Your task to perform on an android device: install app "Roku - Official Remote Control" Image 0: 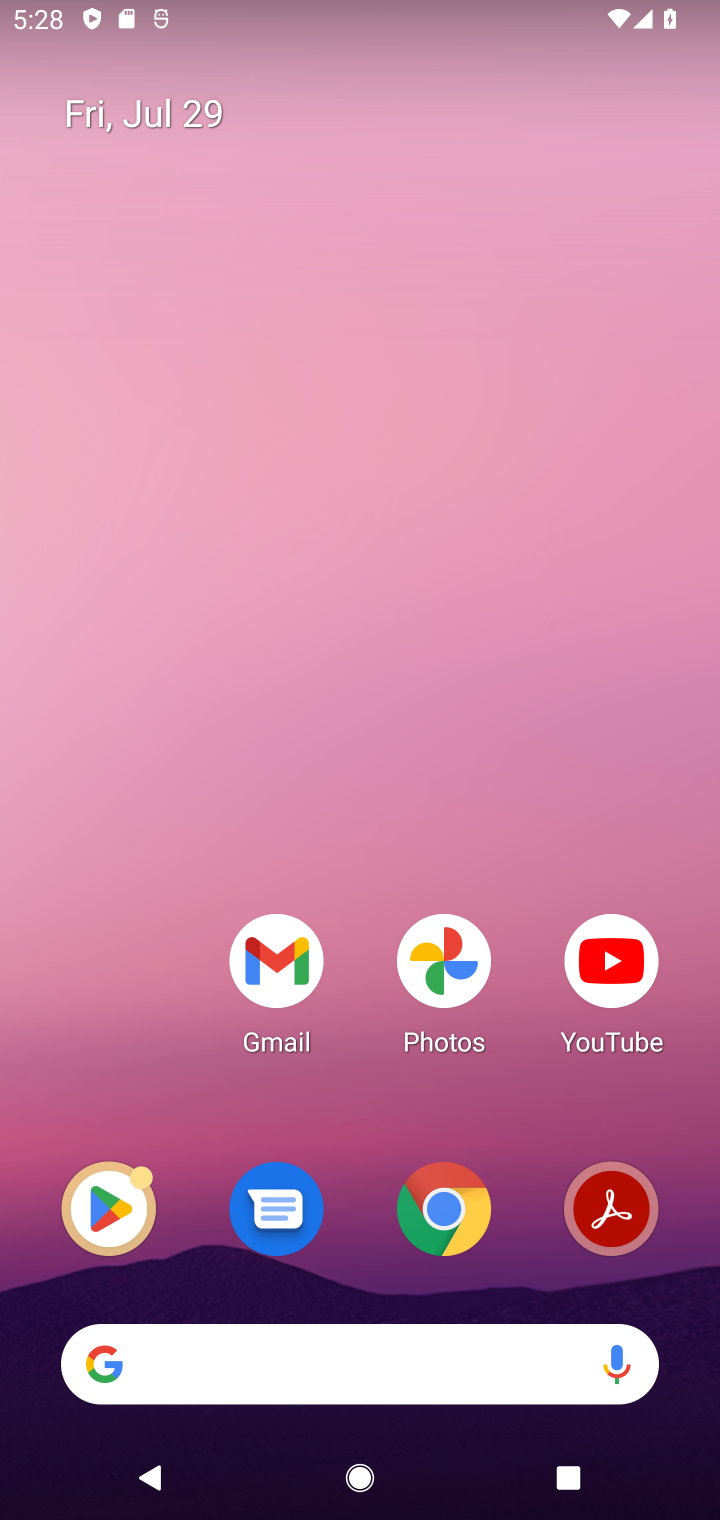
Step 0: click (101, 1218)
Your task to perform on an android device: install app "Roku - Official Remote Control" Image 1: 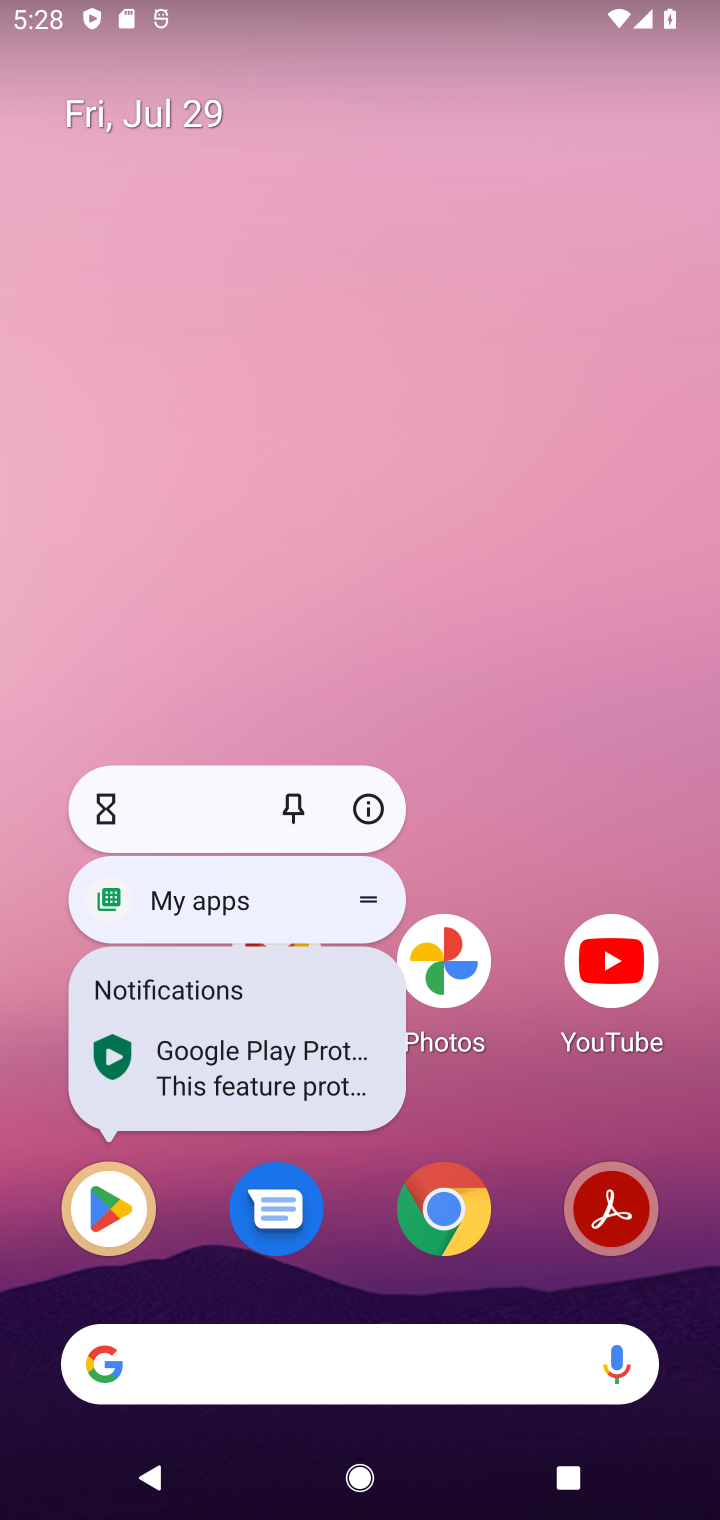
Step 1: click (101, 1218)
Your task to perform on an android device: install app "Roku - Official Remote Control" Image 2: 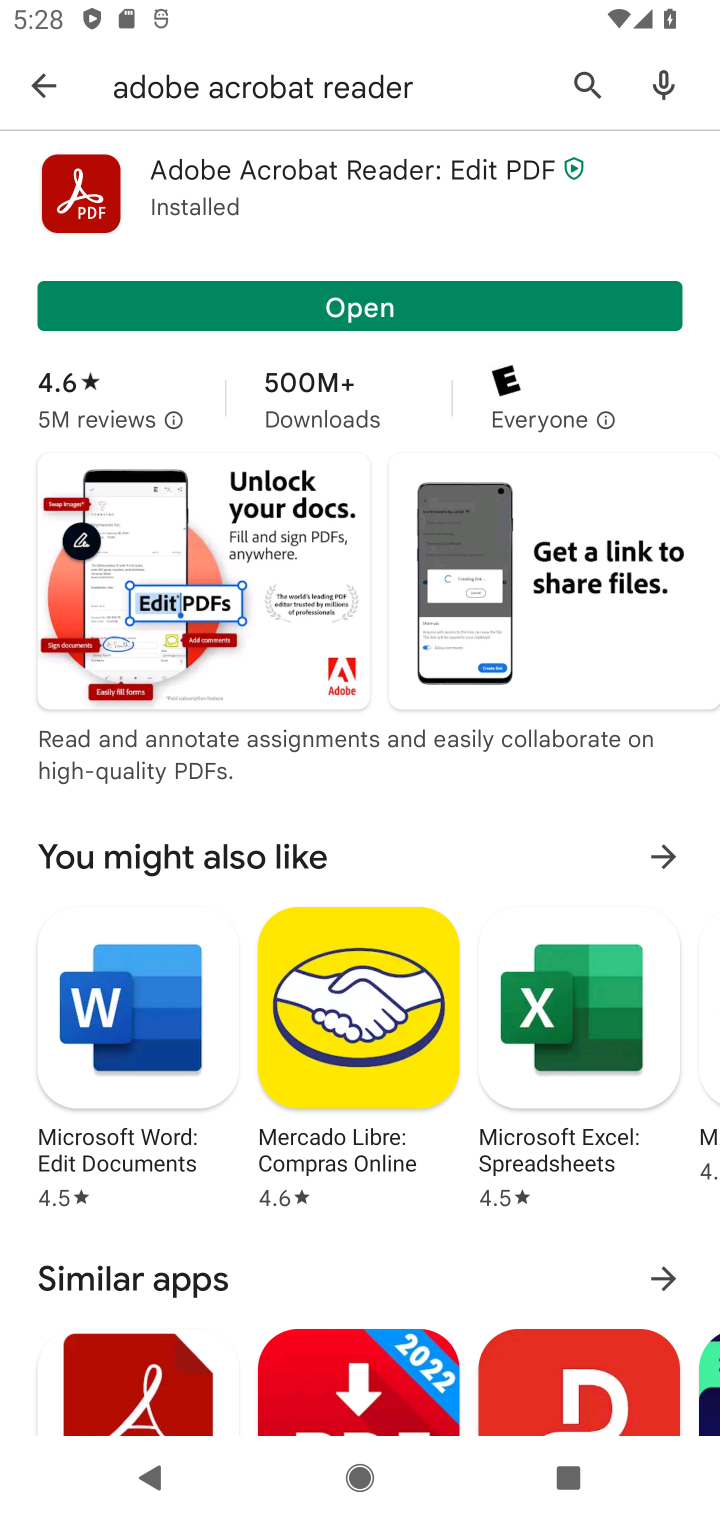
Step 2: click (579, 100)
Your task to perform on an android device: install app "Roku - Official Remote Control" Image 3: 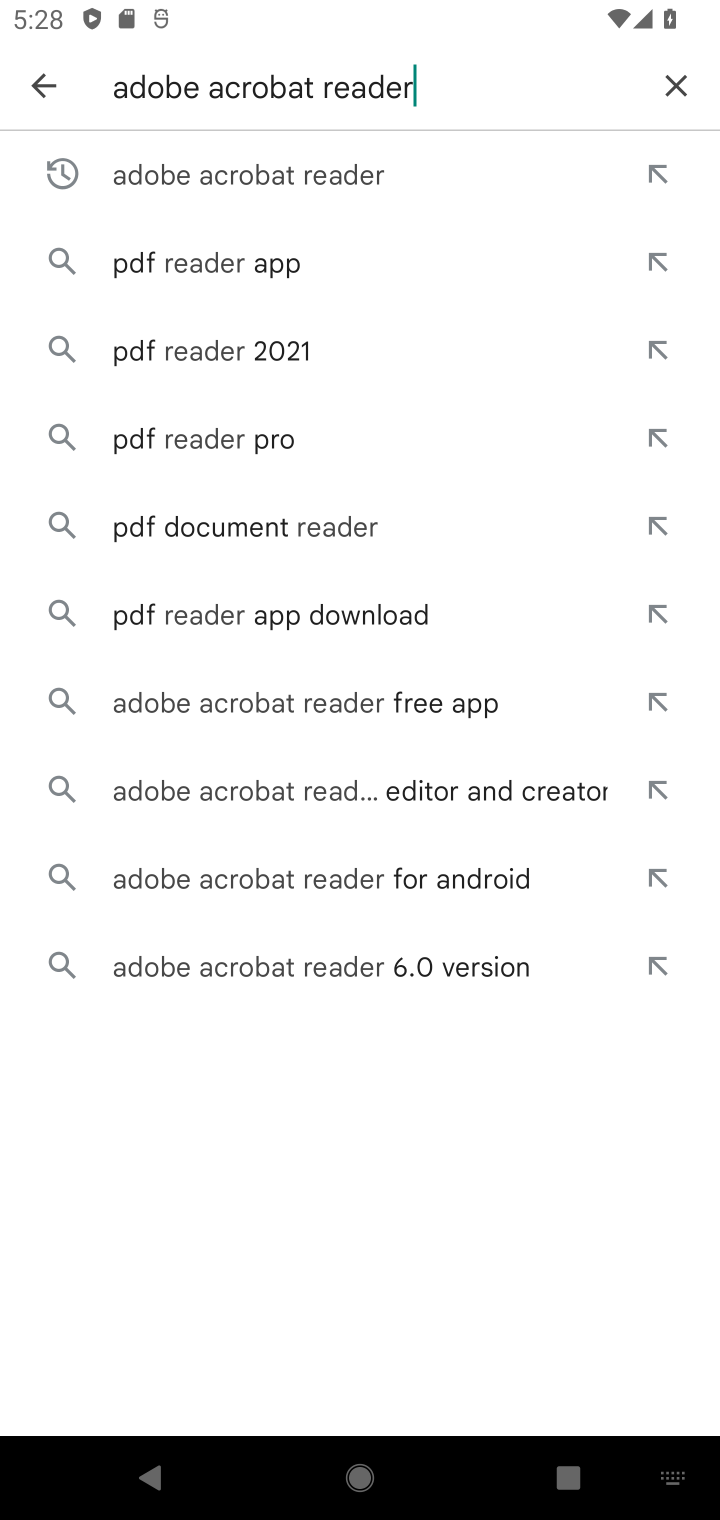
Step 3: click (680, 95)
Your task to perform on an android device: install app "Roku - Official Remote Control" Image 4: 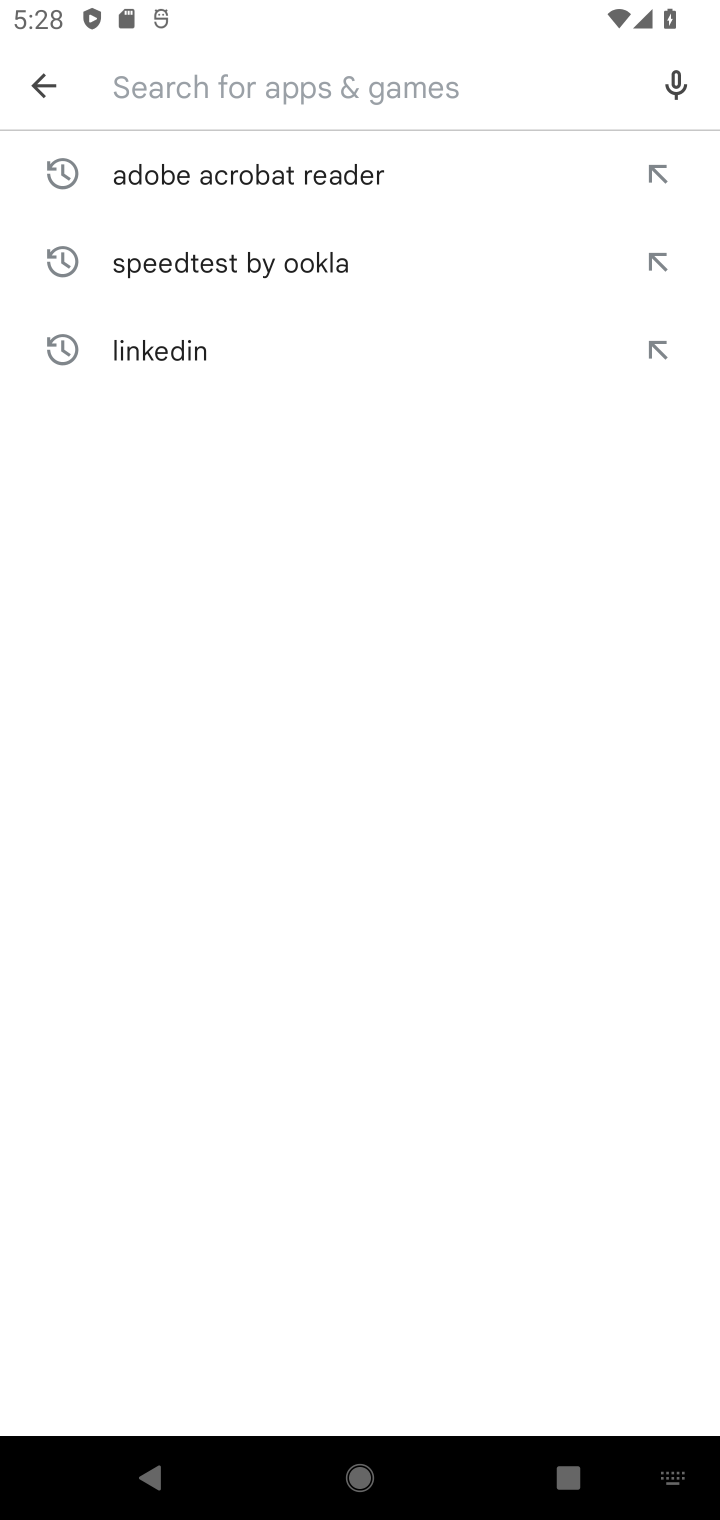
Step 4: click (420, 98)
Your task to perform on an android device: install app "Roku - Official Remote Control" Image 5: 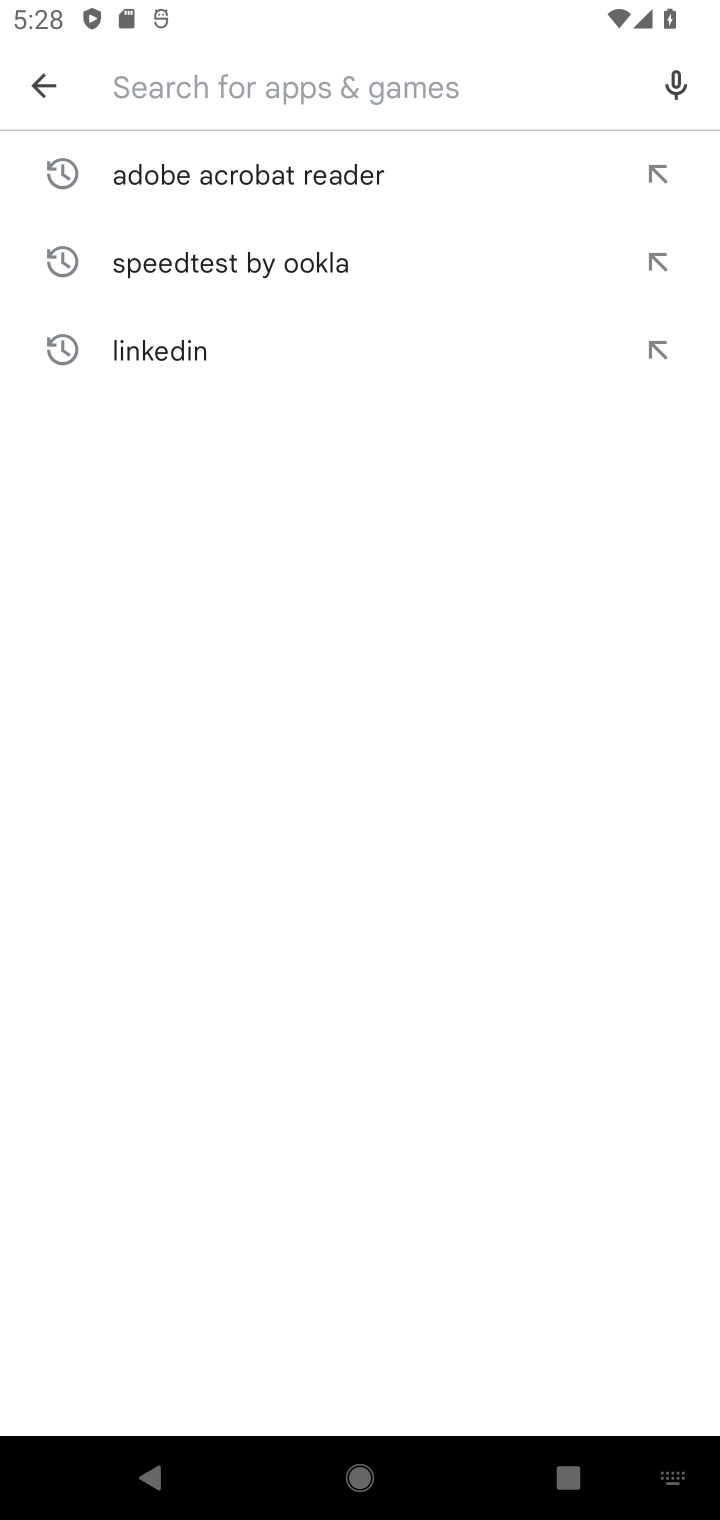
Step 5: type "Roku - Official Remote Control"
Your task to perform on an android device: install app "Roku - Official Remote Control" Image 6: 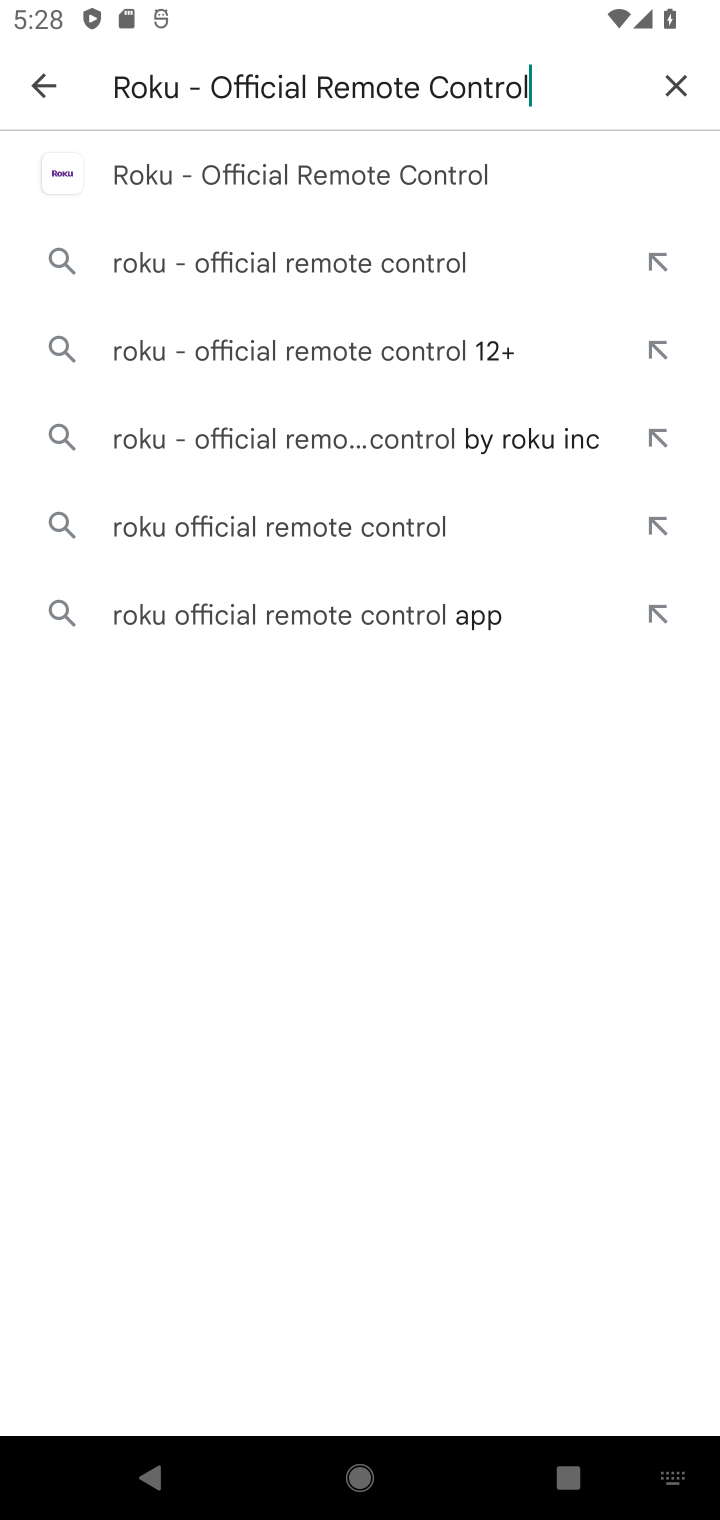
Step 6: click (147, 180)
Your task to perform on an android device: install app "Roku - Official Remote Control" Image 7: 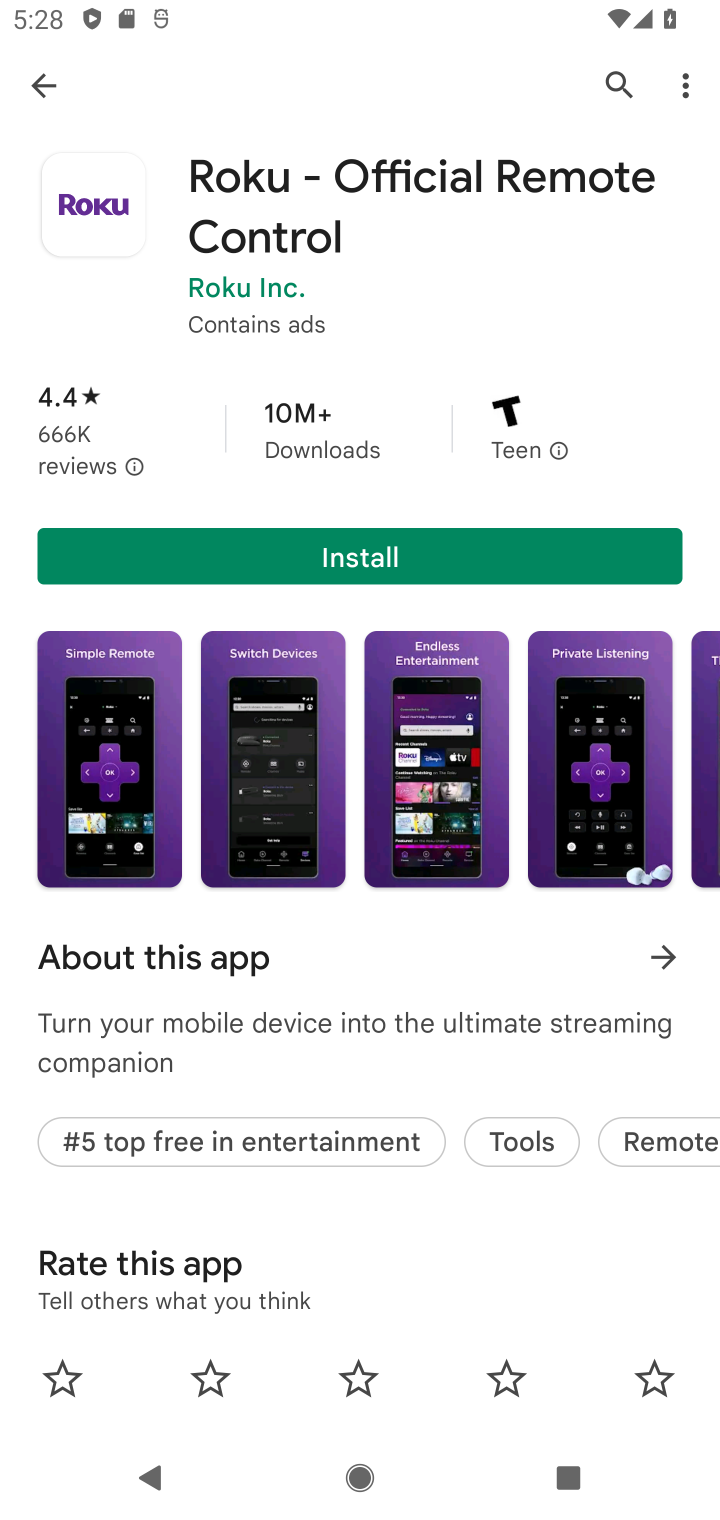
Step 7: click (291, 565)
Your task to perform on an android device: install app "Roku - Official Remote Control" Image 8: 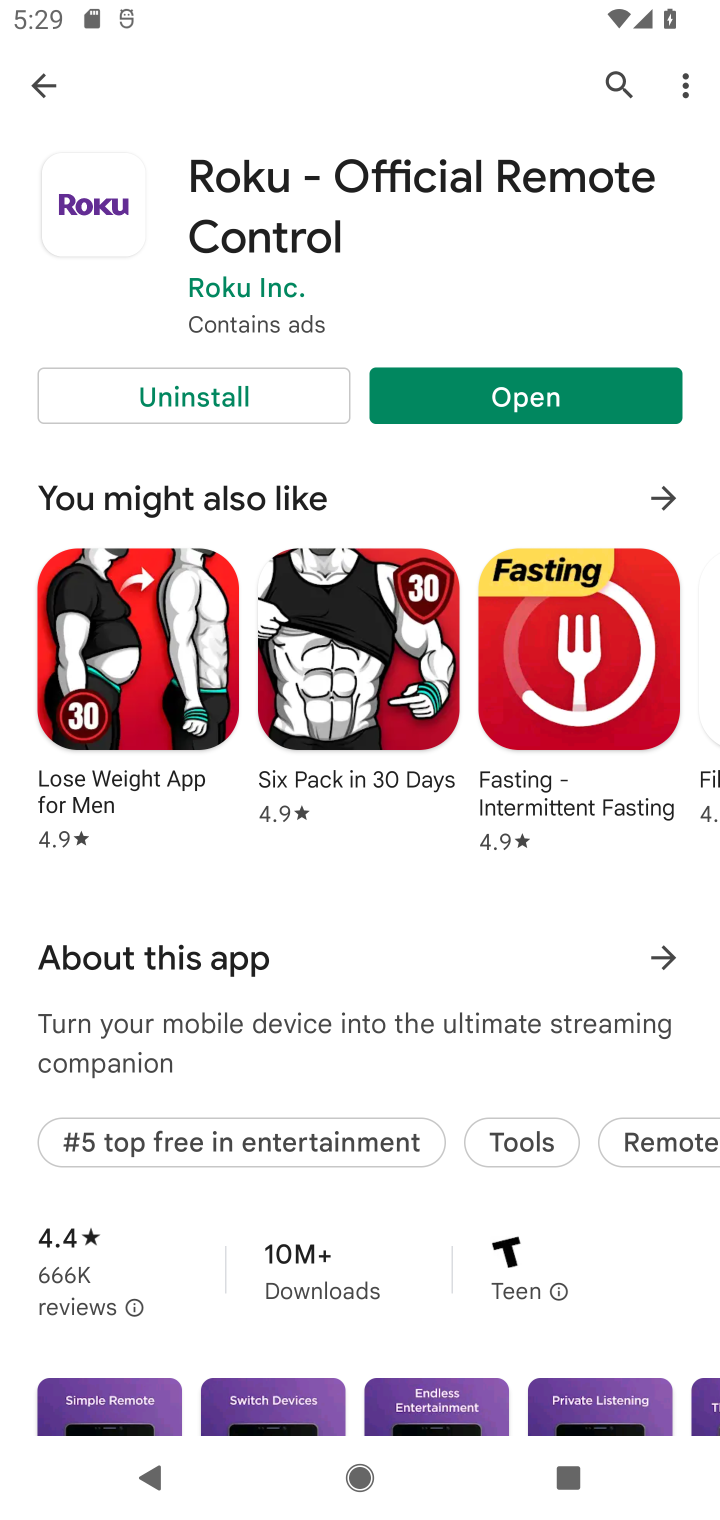
Step 8: task complete